Your task to perform on an android device: Open Google Chrome Image 0: 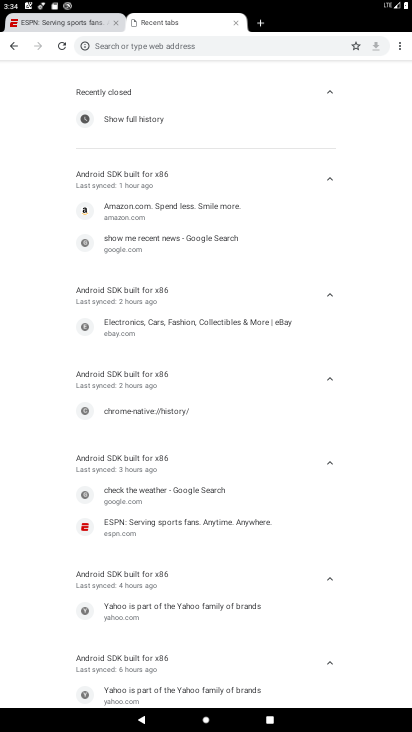
Step 0: press home button
Your task to perform on an android device: Open Google Chrome Image 1: 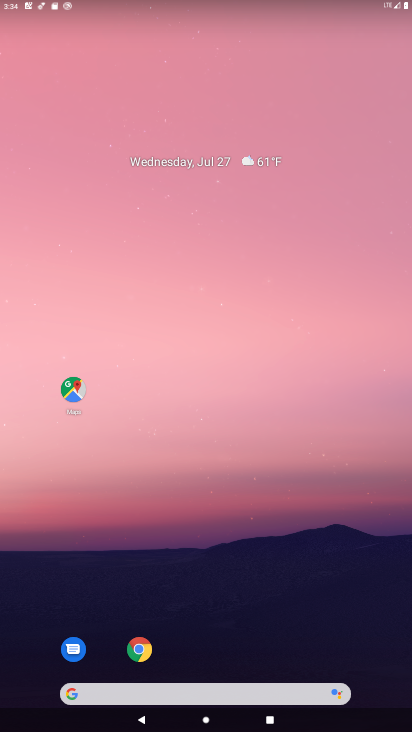
Step 1: click (138, 649)
Your task to perform on an android device: Open Google Chrome Image 2: 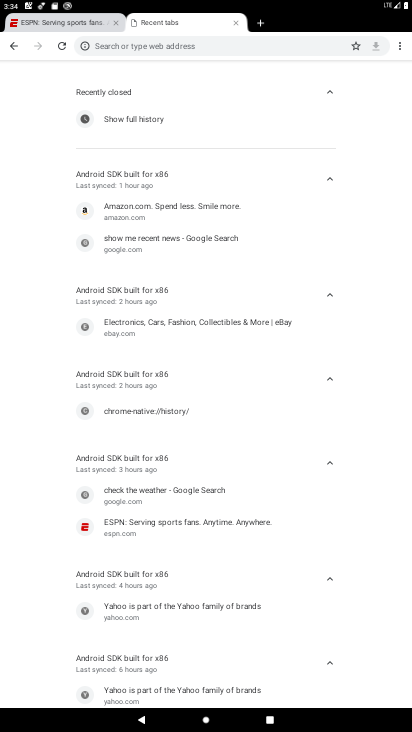
Step 2: task complete